Your task to perform on an android device: set the stopwatch Image 0: 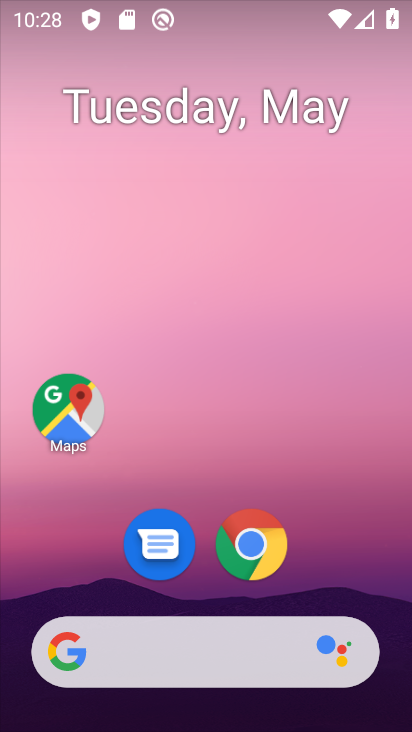
Step 0: drag from (358, 561) to (260, 29)
Your task to perform on an android device: set the stopwatch Image 1: 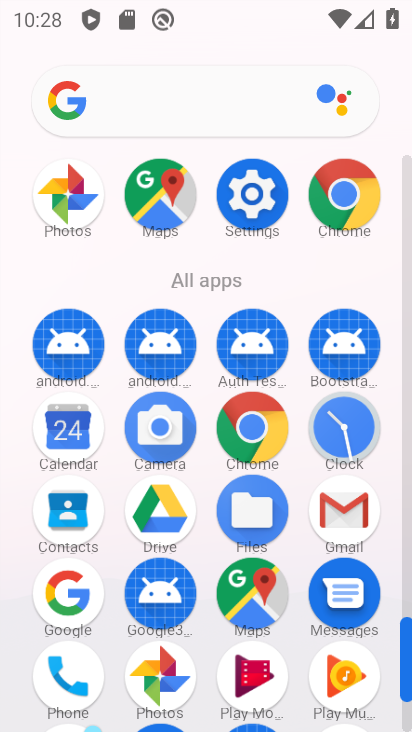
Step 1: click (349, 446)
Your task to perform on an android device: set the stopwatch Image 2: 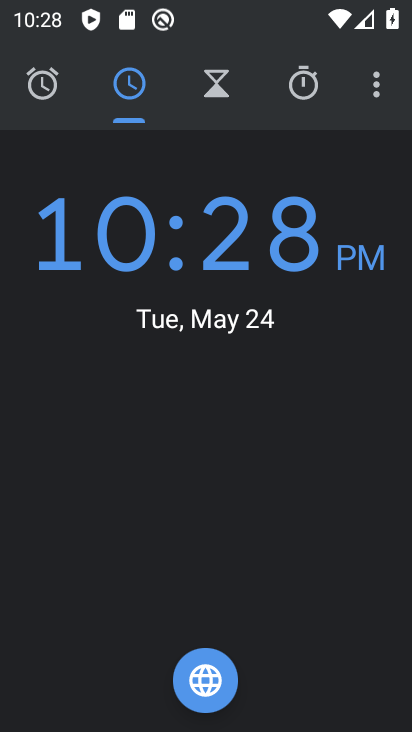
Step 2: click (294, 97)
Your task to perform on an android device: set the stopwatch Image 3: 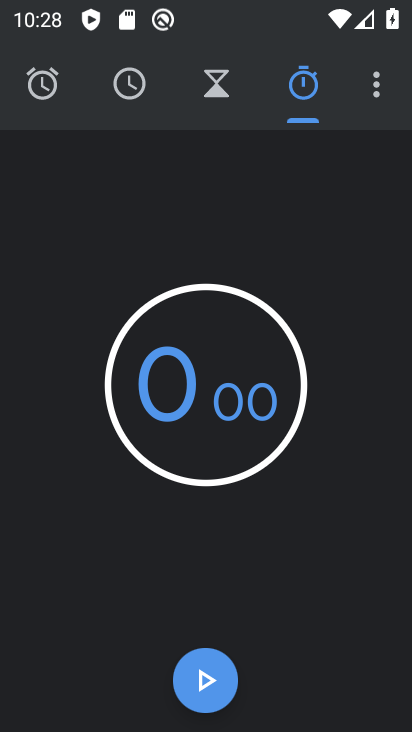
Step 3: click (225, 669)
Your task to perform on an android device: set the stopwatch Image 4: 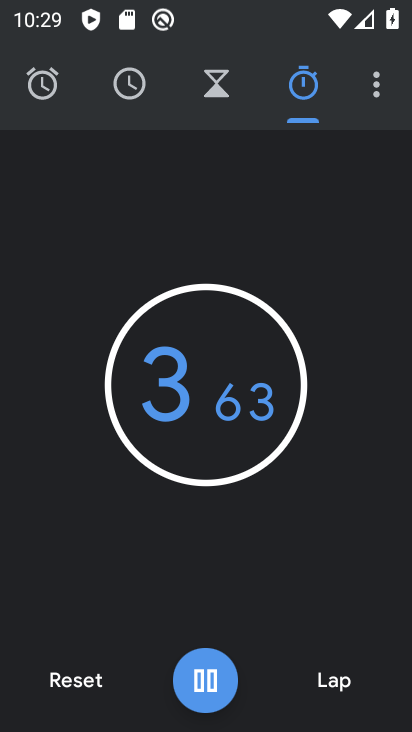
Step 4: task complete